Your task to perform on an android device: turn off wifi Image 0: 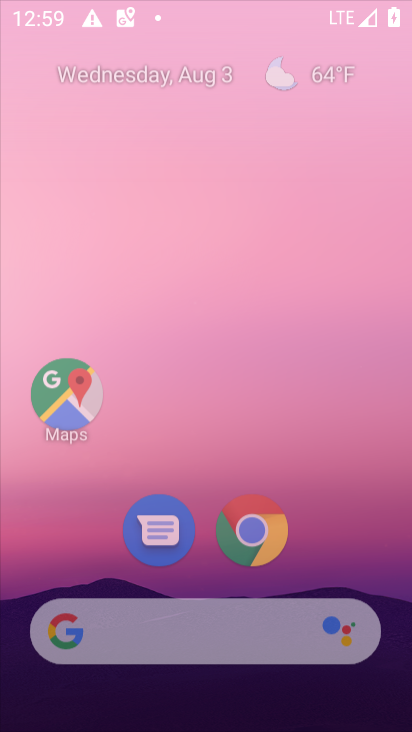
Step 0: drag from (210, 533) to (210, 22)
Your task to perform on an android device: turn off wifi Image 1: 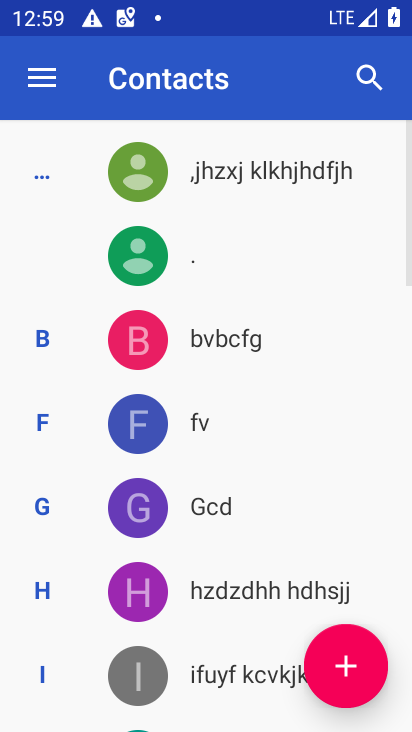
Step 1: press home button
Your task to perform on an android device: turn off wifi Image 2: 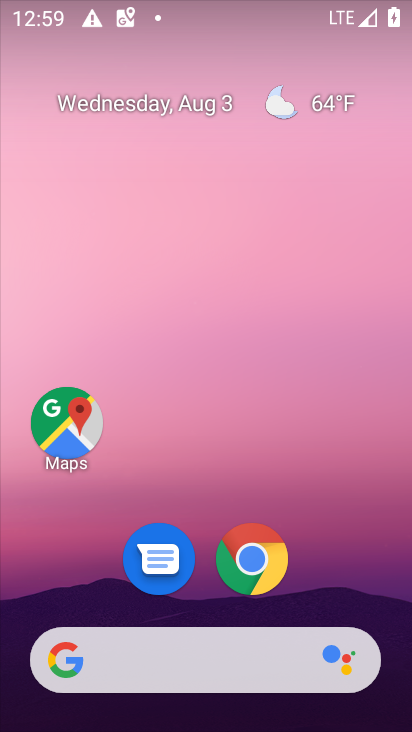
Step 2: drag from (210, 622) to (212, 4)
Your task to perform on an android device: turn off wifi Image 3: 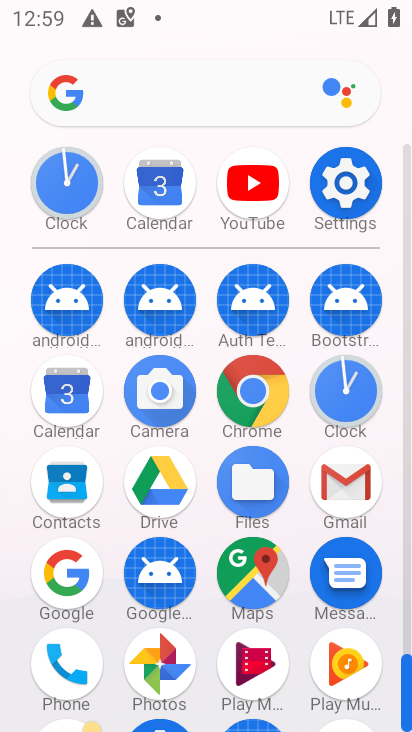
Step 3: click (351, 179)
Your task to perform on an android device: turn off wifi Image 4: 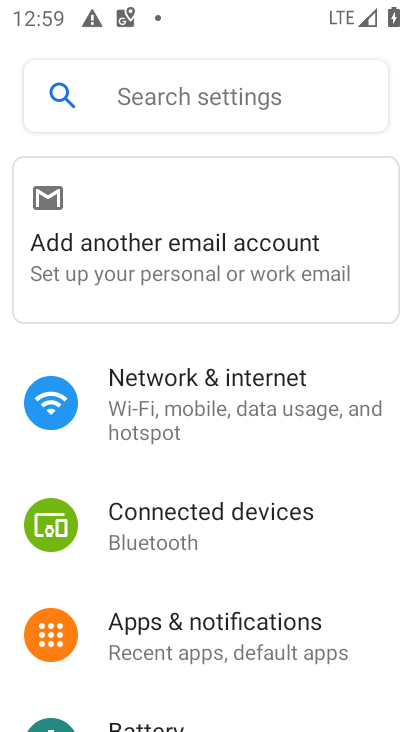
Step 4: click (150, 390)
Your task to perform on an android device: turn off wifi Image 5: 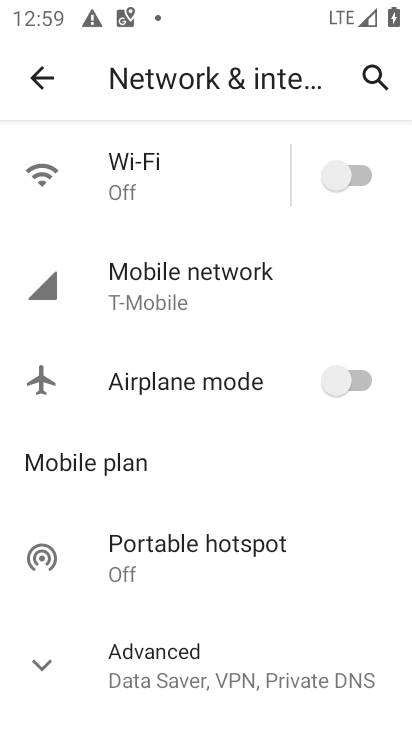
Step 5: task complete